Your task to perform on an android device: Is it going to rain tomorrow? Image 0: 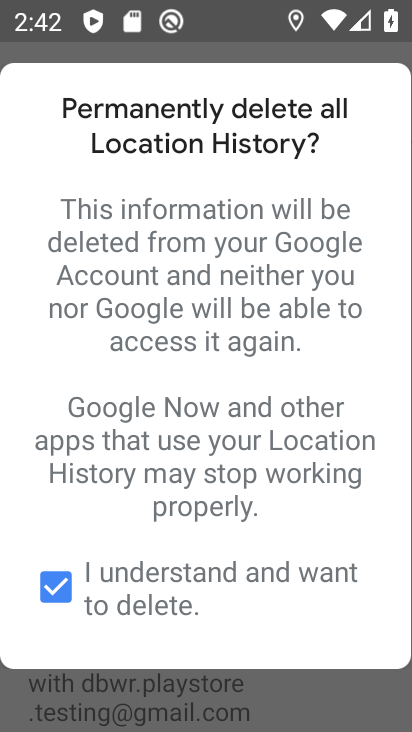
Step 0: drag from (263, 599) to (260, 285)
Your task to perform on an android device: Is it going to rain tomorrow? Image 1: 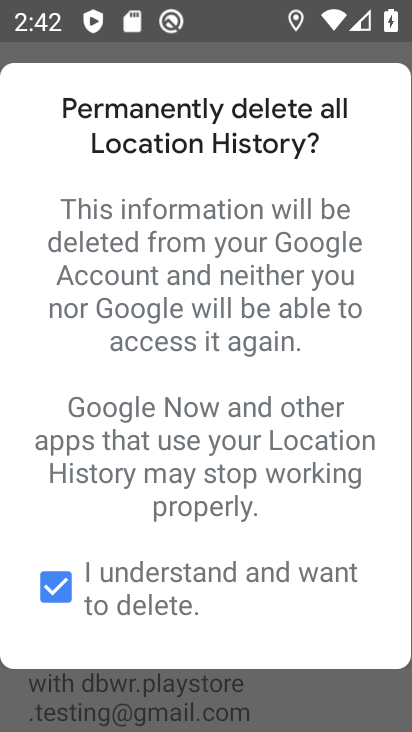
Step 1: click (323, 723)
Your task to perform on an android device: Is it going to rain tomorrow? Image 2: 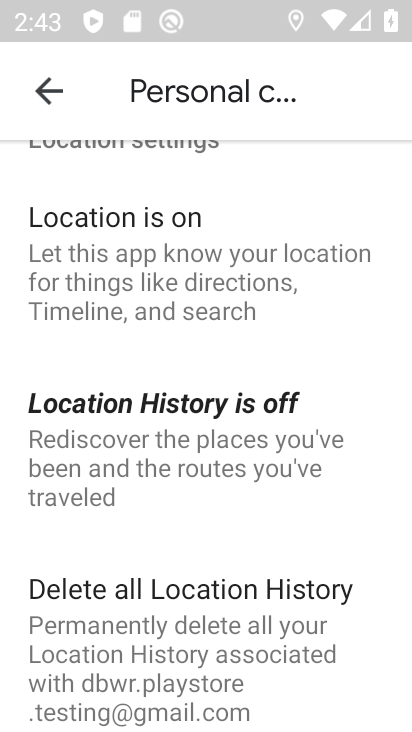
Step 2: press home button
Your task to perform on an android device: Is it going to rain tomorrow? Image 3: 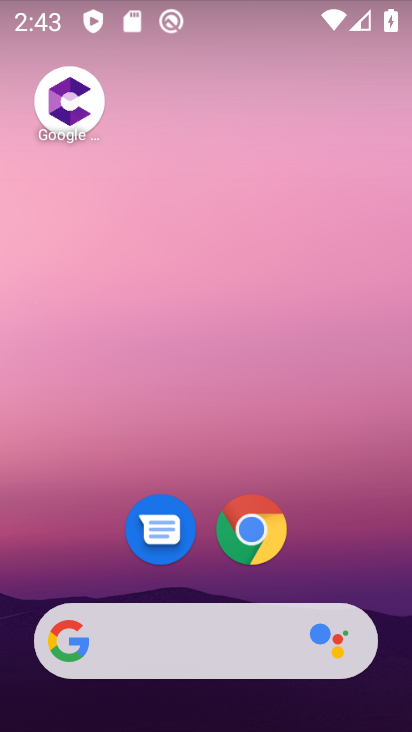
Step 3: drag from (368, 586) to (373, 182)
Your task to perform on an android device: Is it going to rain tomorrow? Image 4: 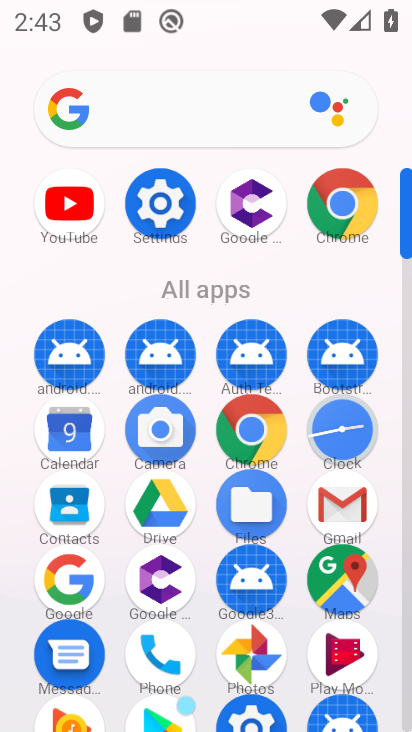
Step 4: click (238, 438)
Your task to perform on an android device: Is it going to rain tomorrow? Image 5: 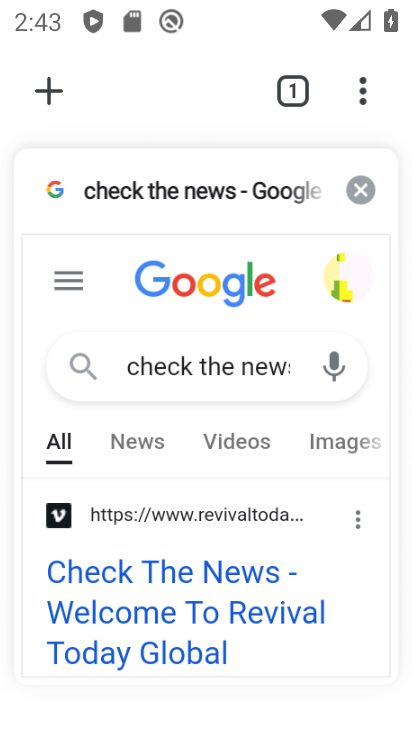
Step 5: click (32, 88)
Your task to perform on an android device: Is it going to rain tomorrow? Image 6: 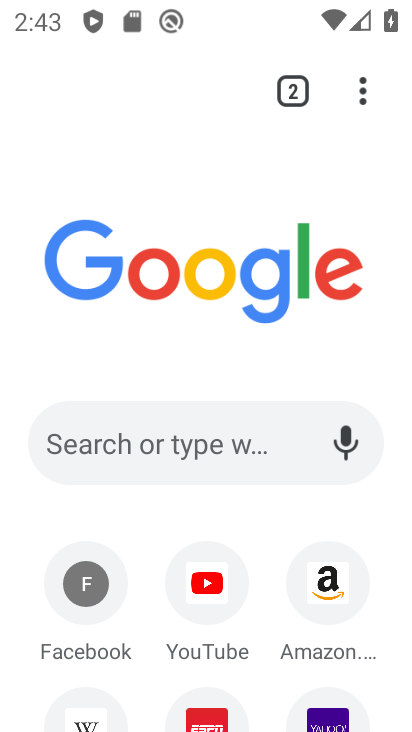
Step 6: click (153, 464)
Your task to perform on an android device: Is it going to rain tomorrow? Image 7: 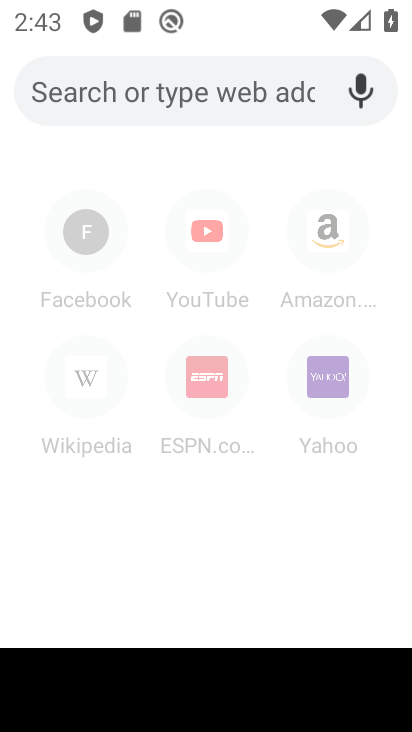
Step 7: type "is it going to rain tomorrow"
Your task to perform on an android device: Is it going to rain tomorrow? Image 8: 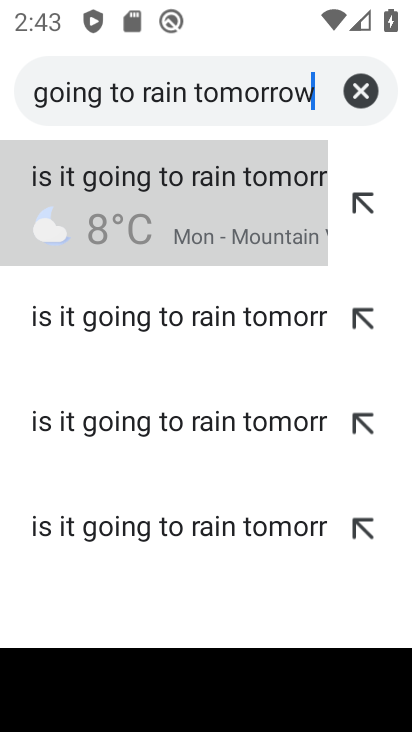
Step 8: click (139, 175)
Your task to perform on an android device: Is it going to rain tomorrow? Image 9: 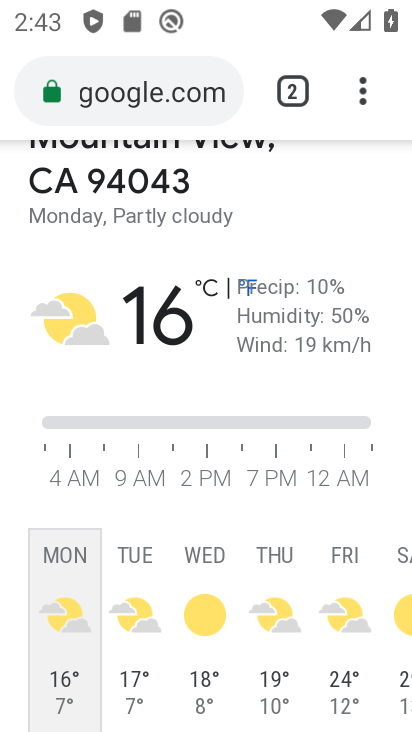
Step 9: task complete